Your task to perform on an android device: Open a new tab in Chrome Image 0: 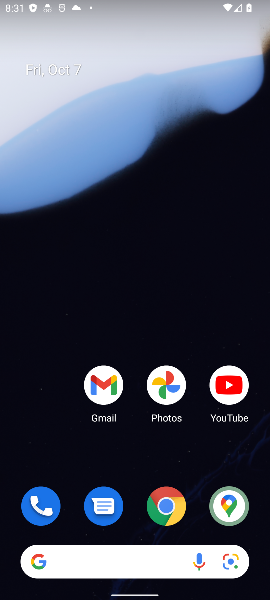
Step 0: press home button
Your task to perform on an android device: Open a new tab in Chrome Image 1: 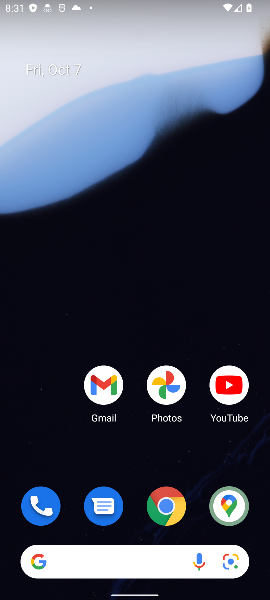
Step 1: click (168, 502)
Your task to perform on an android device: Open a new tab in Chrome Image 2: 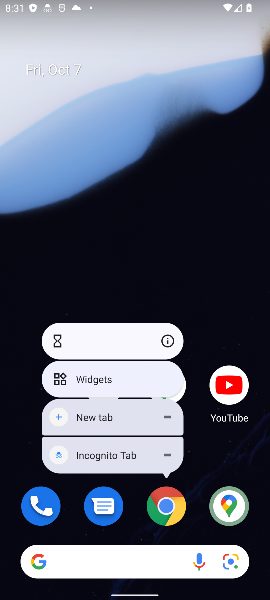
Step 2: click (168, 503)
Your task to perform on an android device: Open a new tab in Chrome Image 3: 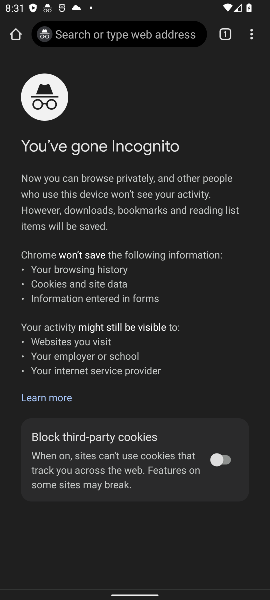
Step 3: task complete